Your task to perform on an android device: turn off location history Image 0: 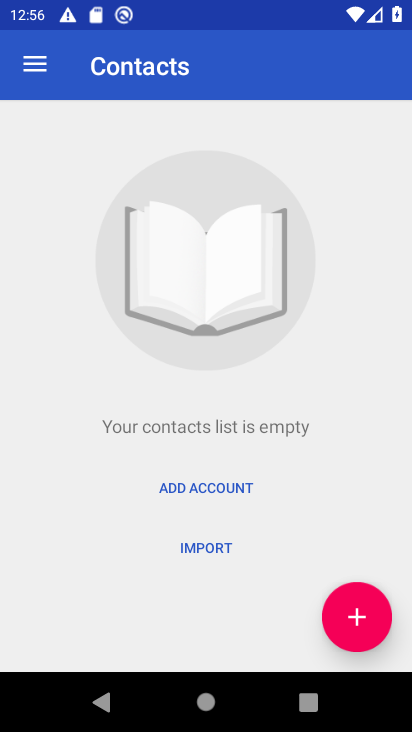
Step 0: press home button
Your task to perform on an android device: turn off location history Image 1: 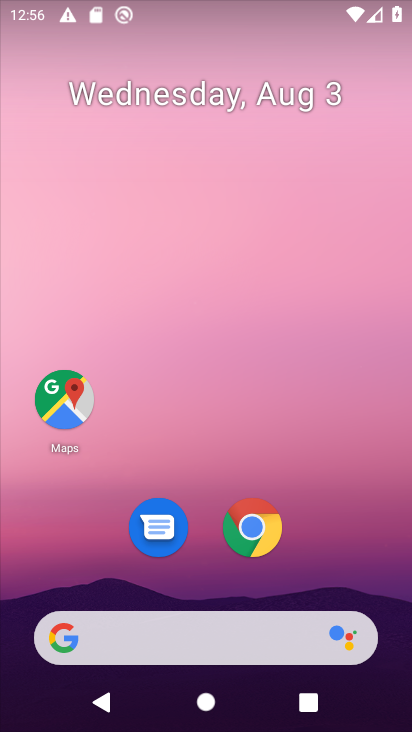
Step 1: drag from (70, 701) to (192, 171)
Your task to perform on an android device: turn off location history Image 2: 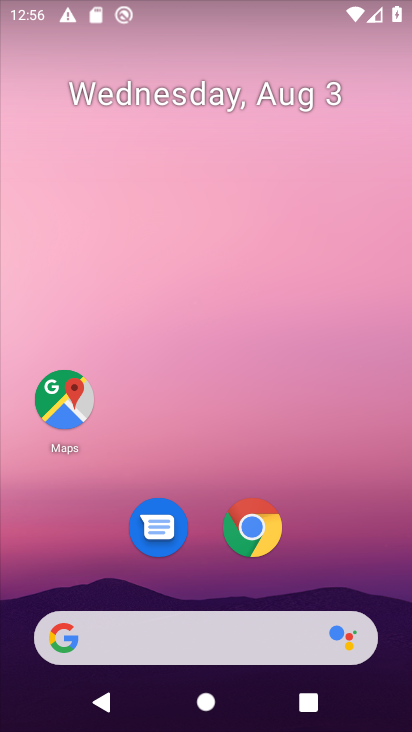
Step 2: drag from (67, 721) to (211, 121)
Your task to perform on an android device: turn off location history Image 3: 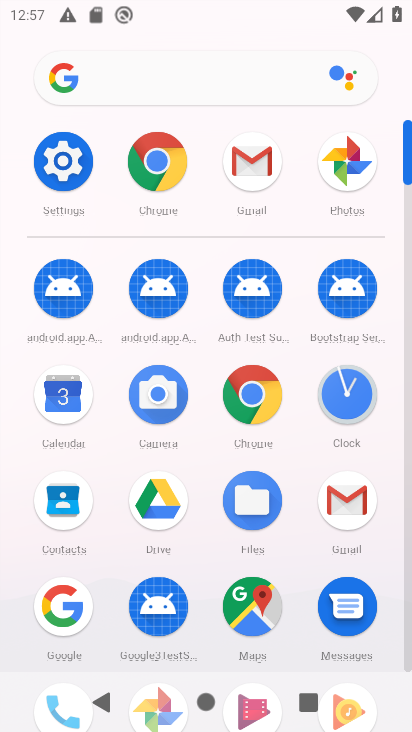
Step 3: drag from (175, 455) to (195, 102)
Your task to perform on an android device: turn off location history Image 4: 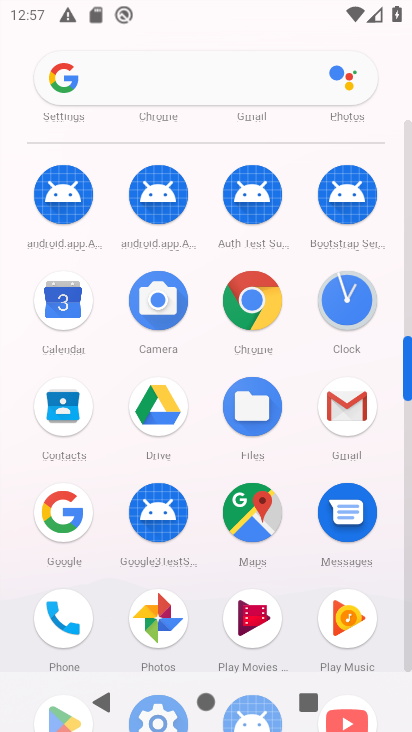
Step 4: drag from (122, 574) to (35, 46)
Your task to perform on an android device: turn off location history Image 5: 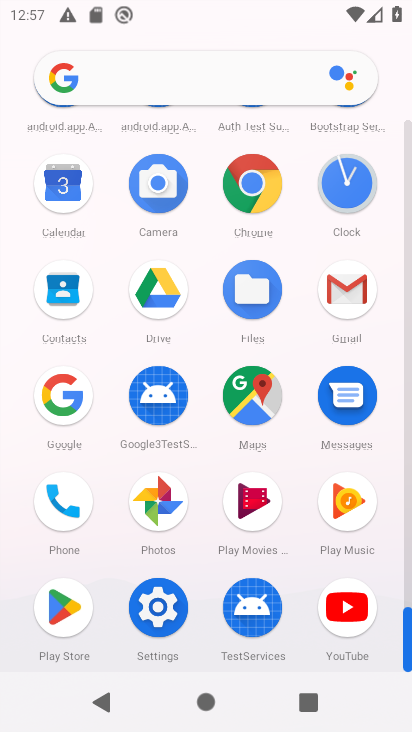
Step 5: click (147, 631)
Your task to perform on an android device: turn off location history Image 6: 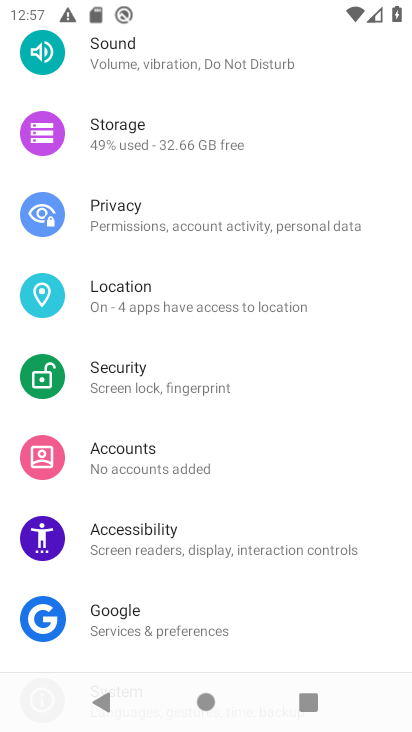
Step 6: click (137, 289)
Your task to perform on an android device: turn off location history Image 7: 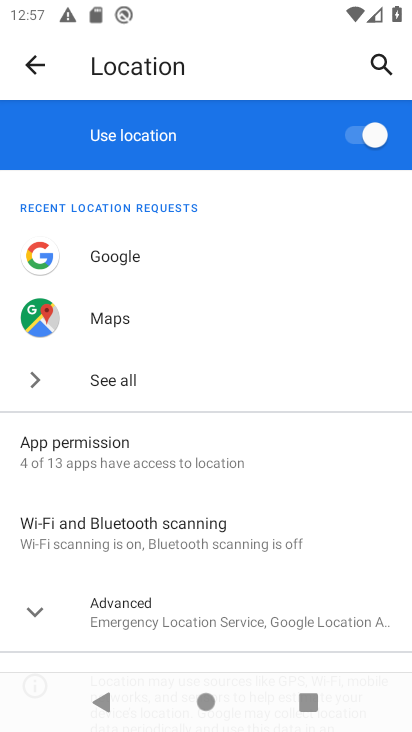
Step 7: drag from (208, 549) to (217, 200)
Your task to perform on an android device: turn off location history Image 8: 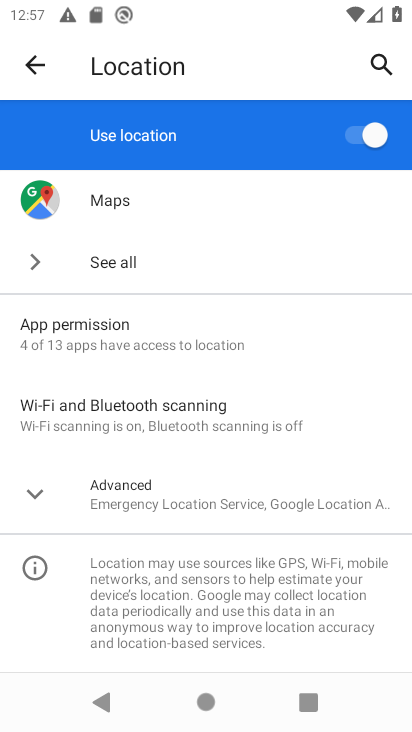
Step 8: click (154, 506)
Your task to perform on an android device: turn off location history Image 9: 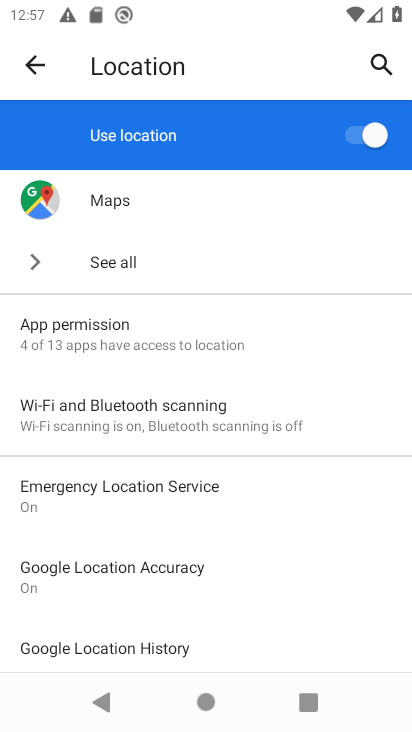
Step 9: click (136, 651)
Your task to perform on an android device: turn off location history Image 10: 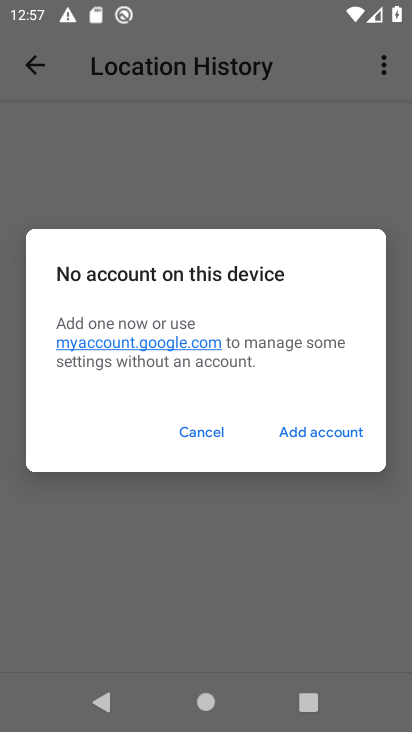
Step 10: click (198, 433)
Your task to perform on an android device: turn off location history Image 11: 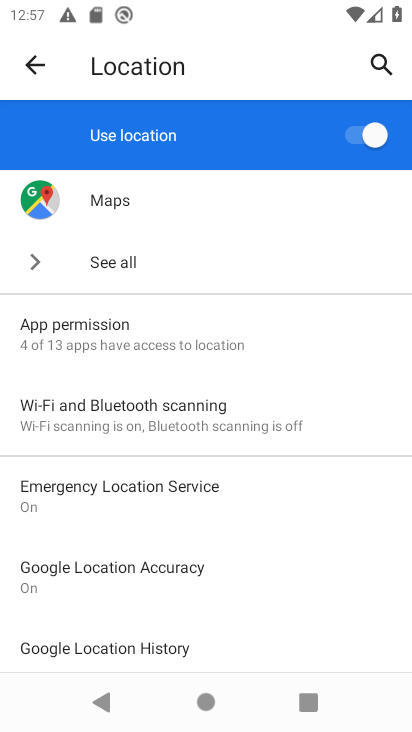
Step 11: click (219, 680)
Your task to perform on an android device: turn off location history Image 12: 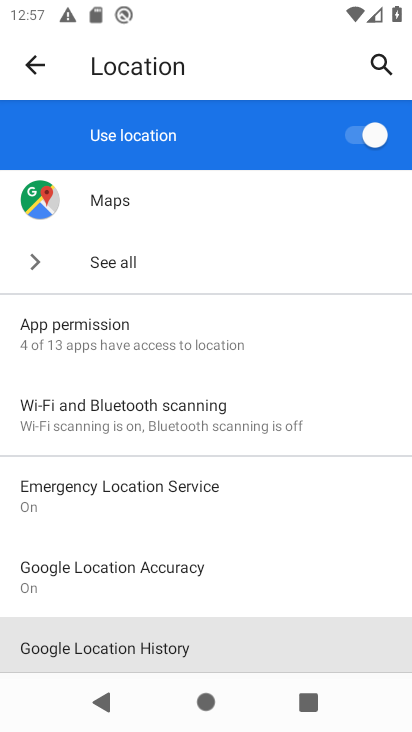
Step 12: drag from (222, 639) to (257, 350)
Your task to perform on an android device: turn off location history Image 13: 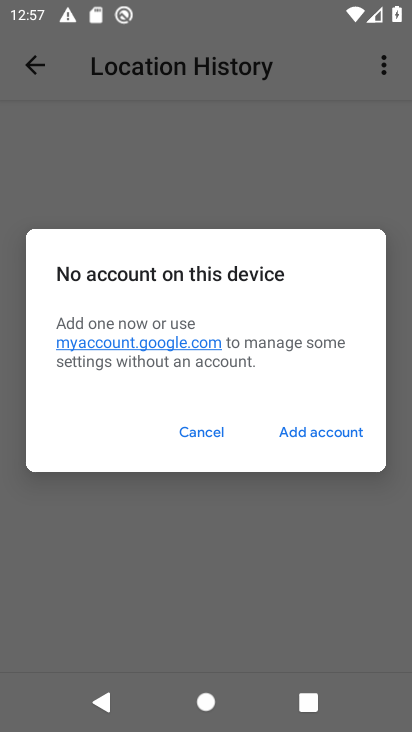
Step 13: click (23, 68)
Your task to perform on an android device: turn off location history Image 14: 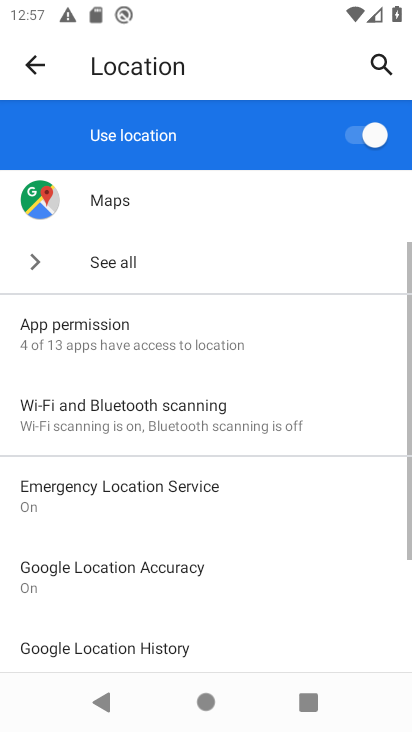
Step 14: task complete